Your task to perform on an android device: change the clock display to digital Image 0: 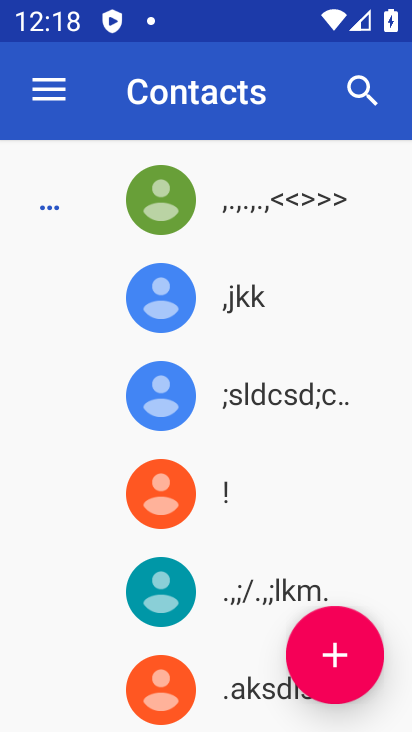
Step 0: press home button
Your task to perform on an android device: change the clock display to digital Image 1: 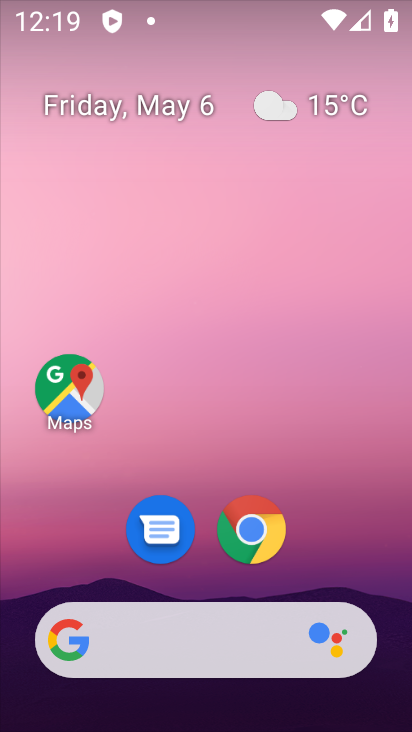
Step 1: drag from (322, 533) to (302, 65)
Your task to perform on an android device: change the clock display to digital Image 2: 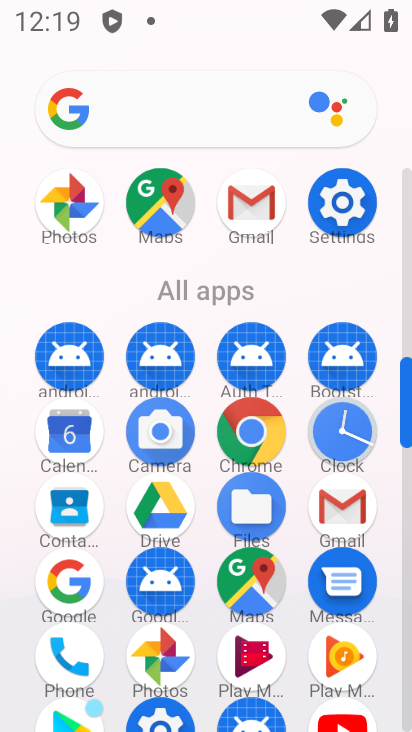
Step 2: drag from (287, 314) to (272, 125)
Your task to perform on an android device: change the clock display to digital Image 3: 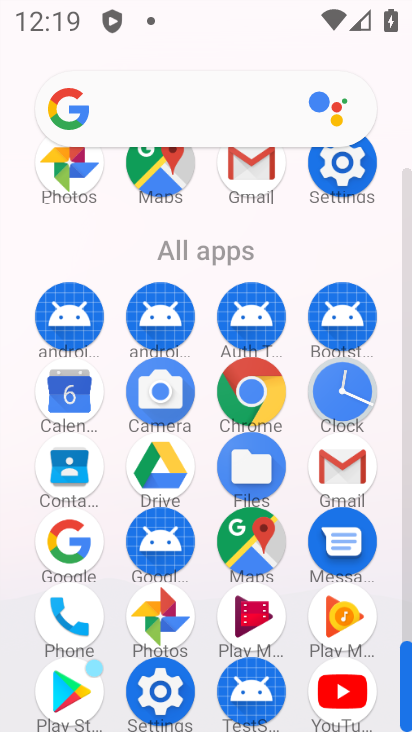
Step 3: click (338, 409)
Your task to perform on an android device: change the clock display to digital Image 4: 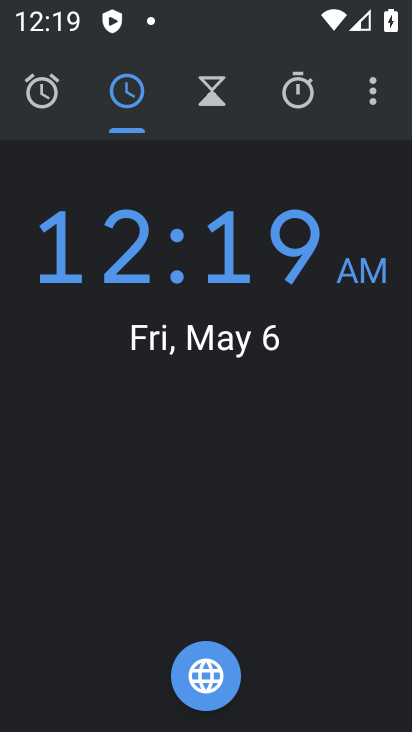
Step 4: click (366, 113)
Your task to perform on an android device: change the clock display to digital Image 5: 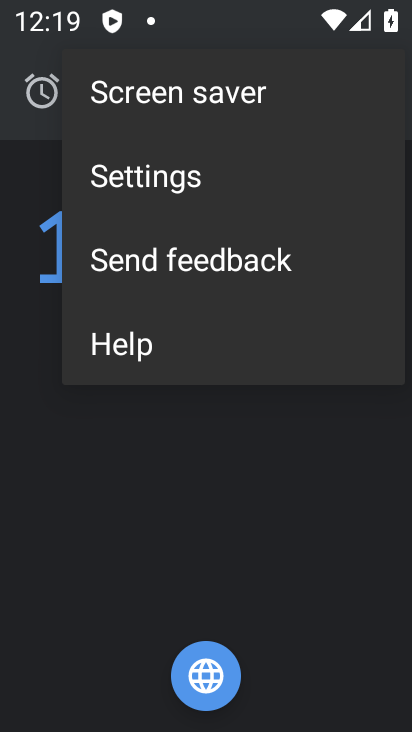
Step 5: click (171, 174)
Your task to perform on an android device: change the clock display to digital Image 6: 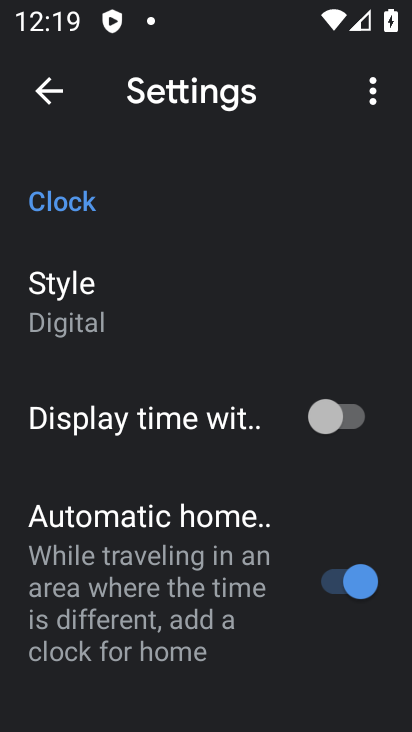
Step 6: task complete